Your task to perform on an android device: Open Google Maps and go to "Timeline" Image 0: 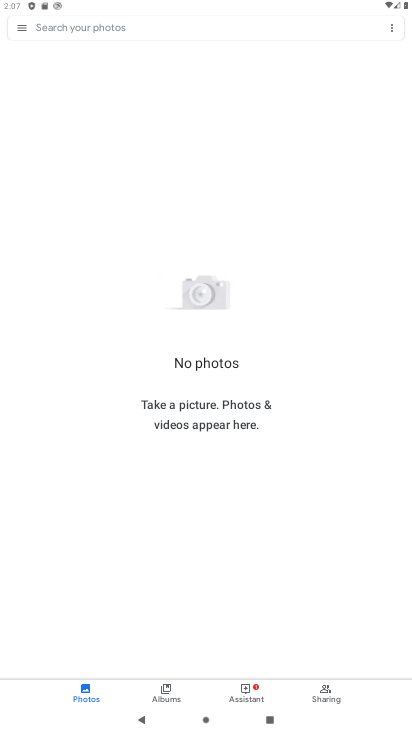
Step 0: press home button
Your task to perform on an android device: Open Google Maps and go to "Timeline" Image 1: 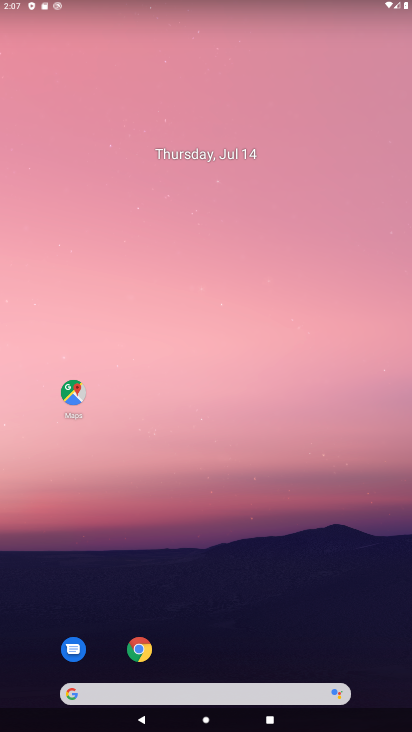
Step 1: drag from (227, 551) to (278, 277)
Your task to perform on an android device: Open Google Maps and go to "Timeline" Image 2: 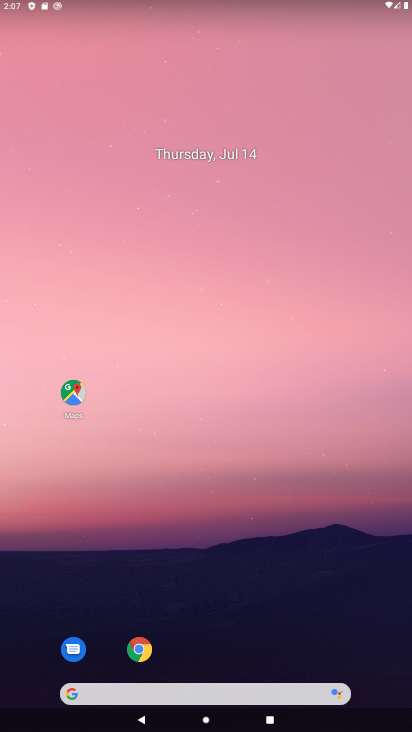
Step 2: click (206, 561)
Your task to perform on an android device: Open Google Maps and go to "Timeline" Image 3: 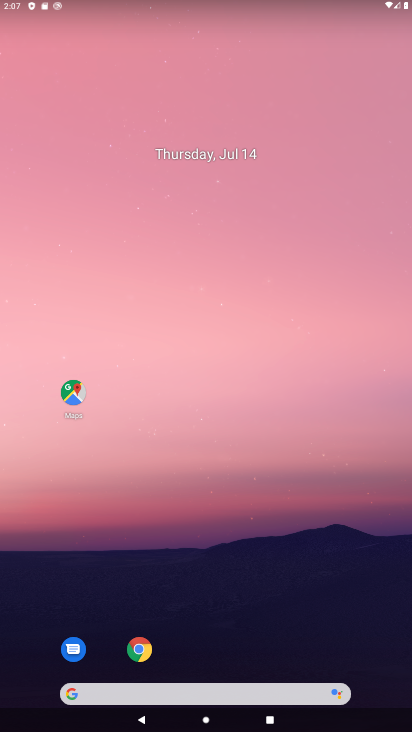
Step 3: drag from (227, 639) to (273, 213)
Your task to perform on an android device: Open Google Maps and go to "Timeline" Image 4: 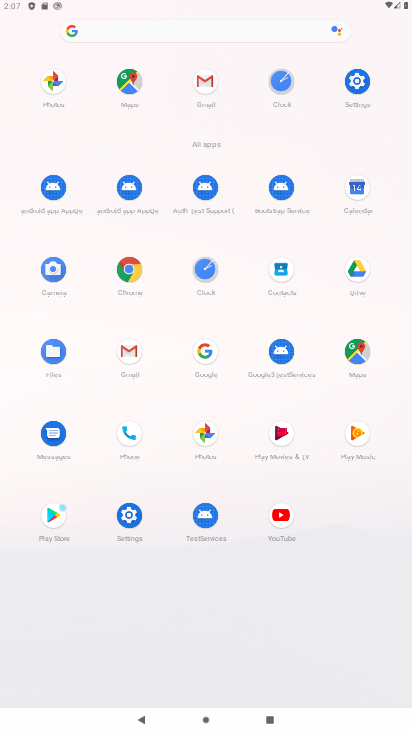
Step 4: click (362, 346)
Your task to perform on an android device: Open Google Maps and go to "Timeline" Image 5: 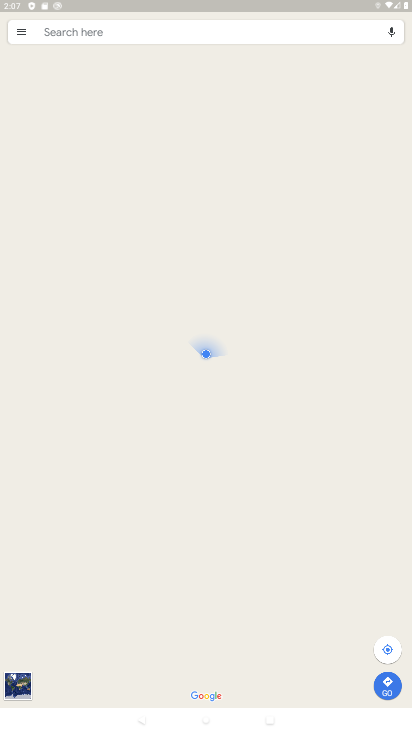
Step 5: click (20, 29)
Your task to perform on an android device: Open Google Maps and go to "Timeline" Image 6: 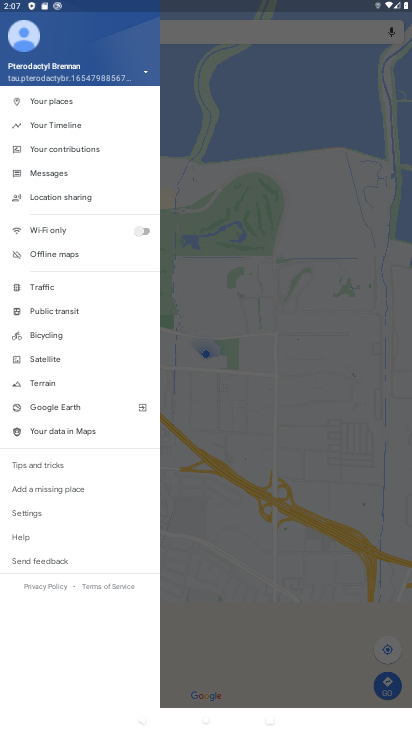
Step 6: click (86, 132)
Your task to perform on an android device: Open Google Maps and go to "Timeline" Image 7: 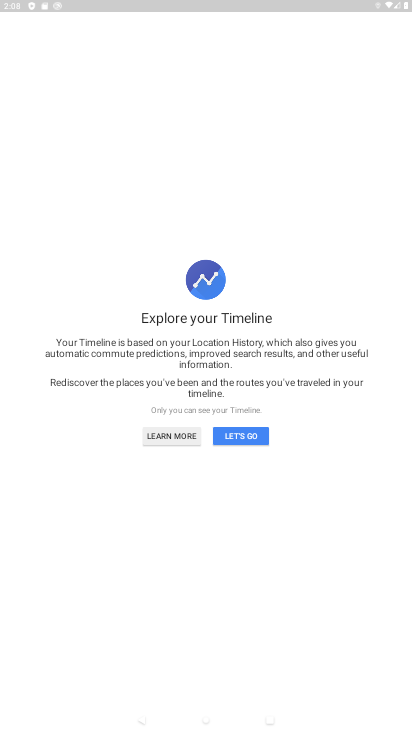
Step 7: click (241, 435)
Your task to perform on an android device: Open Google Maps and go to "Timeline" Image 8: 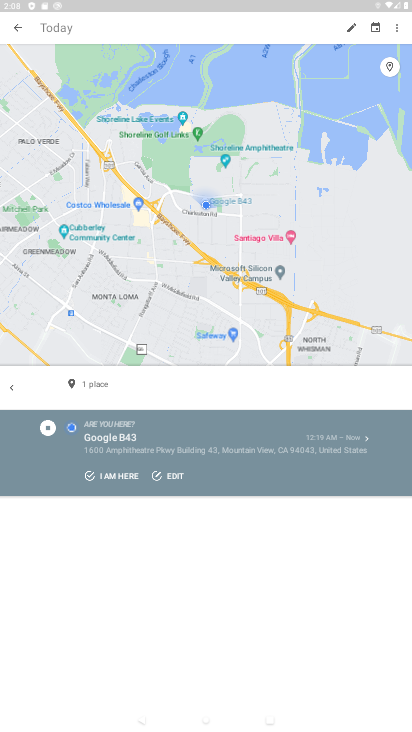
Step 8: task complete